Your task to perform on an android device: turn on improve location accuracy Image 0: 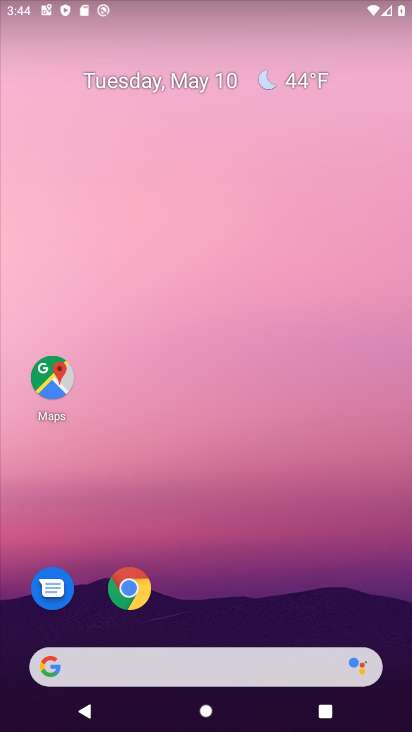
Step 0: drag from (273, 581) to (260, 57)
Your task to perform on an android device: turn on improve location accuracy Image 1: 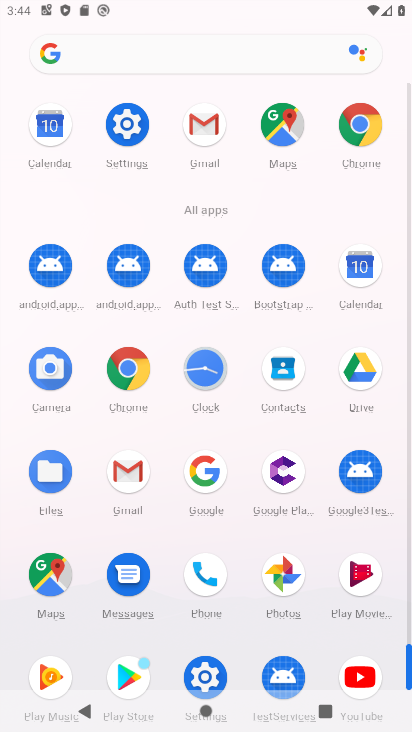
Step 1: drag from (250, 603) to (226, 138)
Your task to perform on an android device: turn on improve location accuracy Image 2: 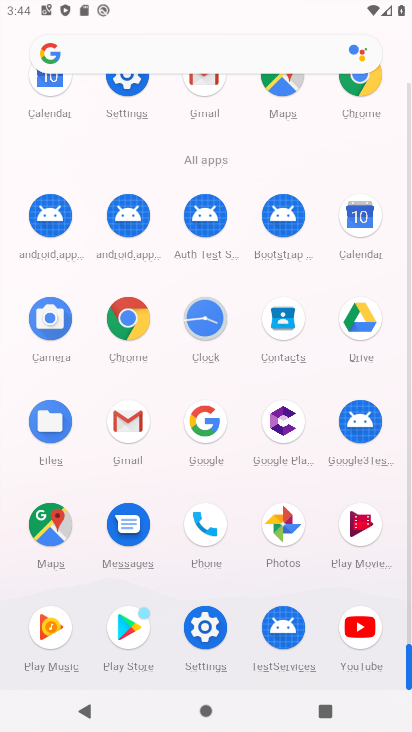
Step 2: click (207, 616)
Your task to perform on an android device: turn on improve location accuracy Image 3: 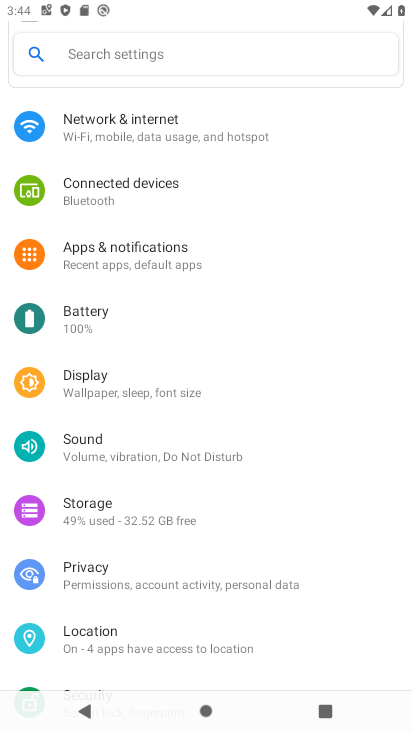
Step 3: drag from (182, 494) to (188, 217)
Your task to perform on an android device: turn on improve location accuracy Image 4: 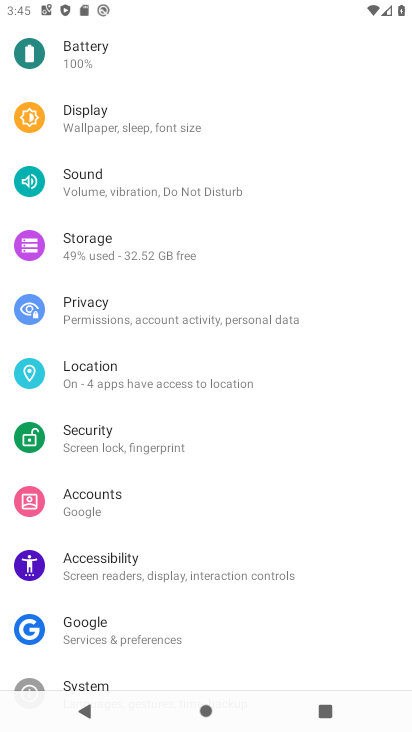
Step 4: click (113, 385)
Your task to perform on an android device: turn on improve location accuracy Image 5: 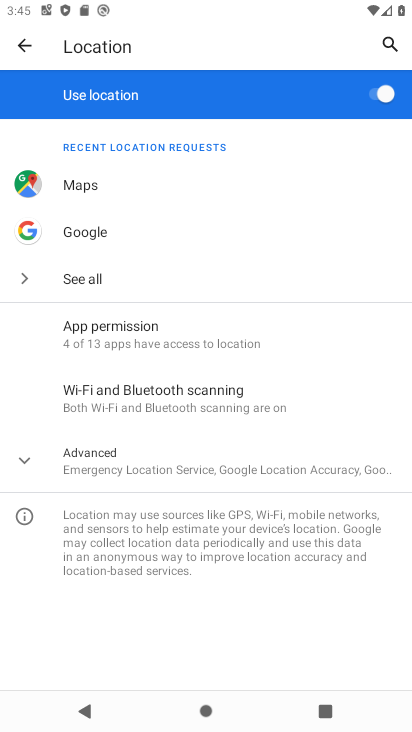
Step 5: click (144, 459)
Your task to perform on an android device: turn on improve location accuracy Image 6: 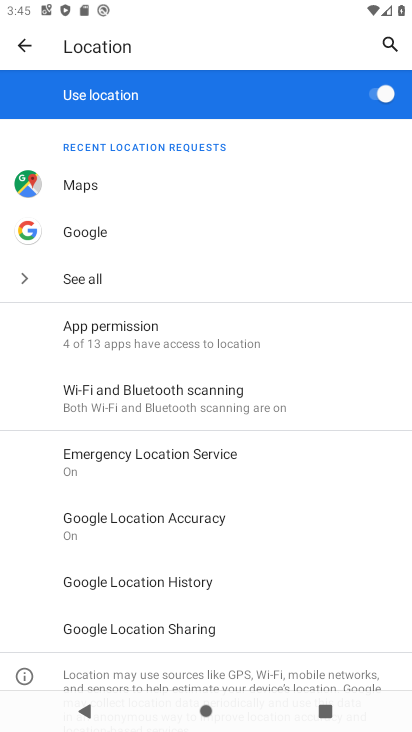
Step 6: click (186, 523)
Your task to perform on an android device: turn on improve location accuracy Image 7: 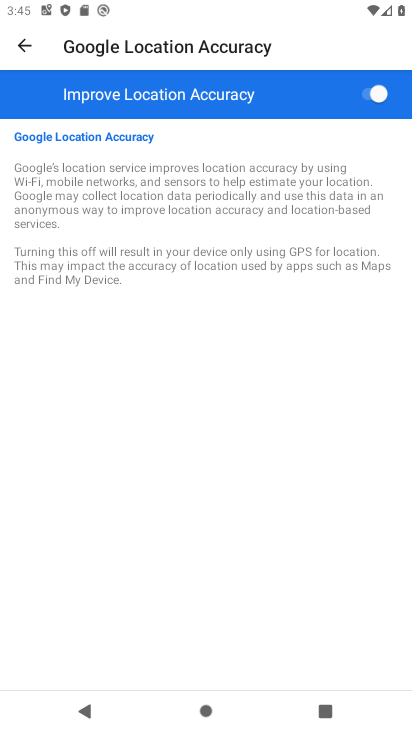
Step 7: task complete